Your task to perform on an android device: What's the time in New York? Image 0: 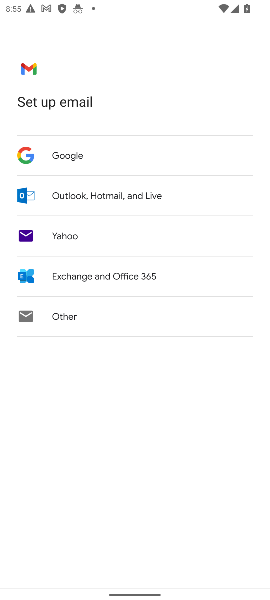
Step 0: press home button
Your task to perform on an android device: What's the time in New York? Image 1: 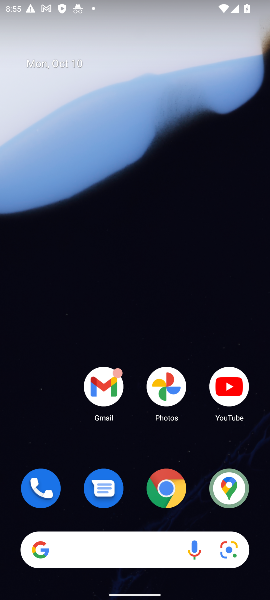
Step 1: click (165, 491)
Your task to perform on an android device: What's the time in New York? Image 2: 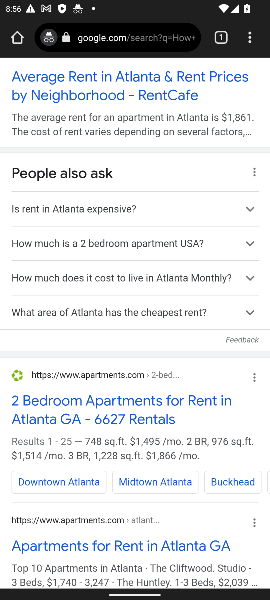
Step 2: click (149, 42)
Your task to perform on an android device: What's the time in New York? Image 3: 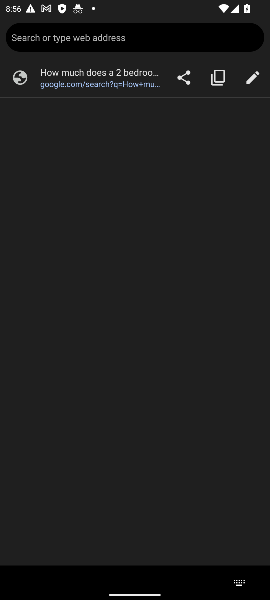
Step 3: type "What's the time in New York?"
Your task to perform on an android device: What's the time in New York? Image 4: 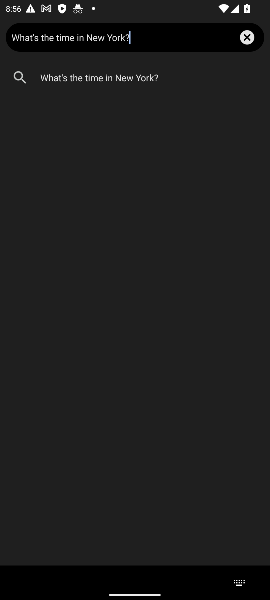
Step 4: press enter
Your task to perform on an android device: What's the time in New York? Image 5: 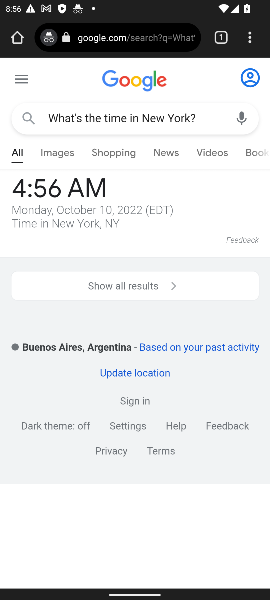
Step 5: task complete